Your task to perform on an android device: Clear the cart on amazon. Add razer blade to the cart on amazon, then select checkout. Image 0: 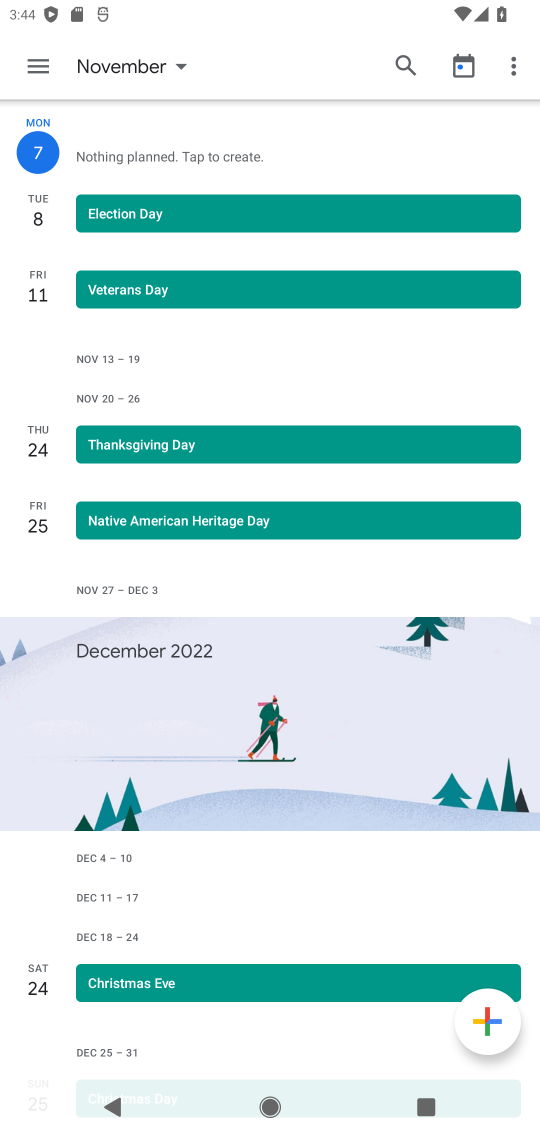
Step 0: press home button
Your task to perform on an android device: Clear the cart on amazon. Add razer blade to the cart on amazon, then select checkout. Image 1: 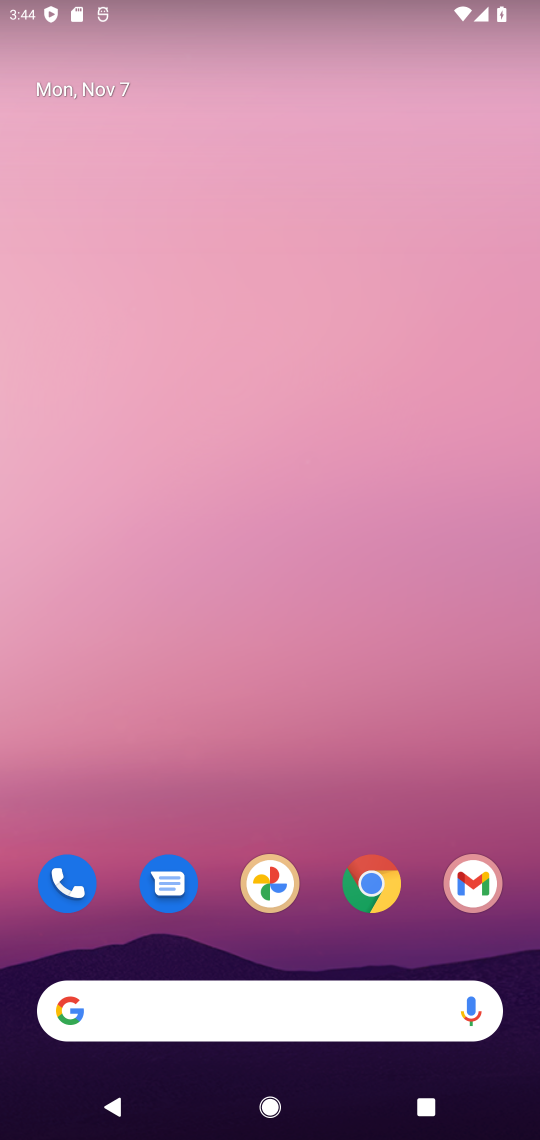
Step 1: click (374, 888)
Your task to perform on an android device: Clear the cart on amazon. Add razer blade to the cart on amazon, then select checkout. Image 2: 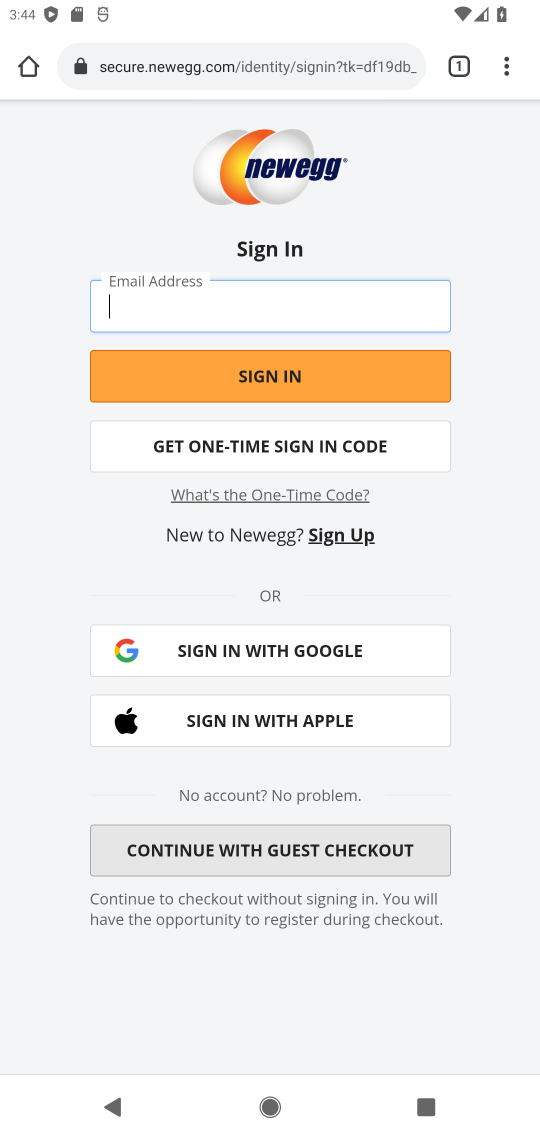
Step 2: click (209, 64)
Your task to perform on an android device: Clear the cart on amazon. Add razer blade to the cart on amazon, then select checkout. Image 3: 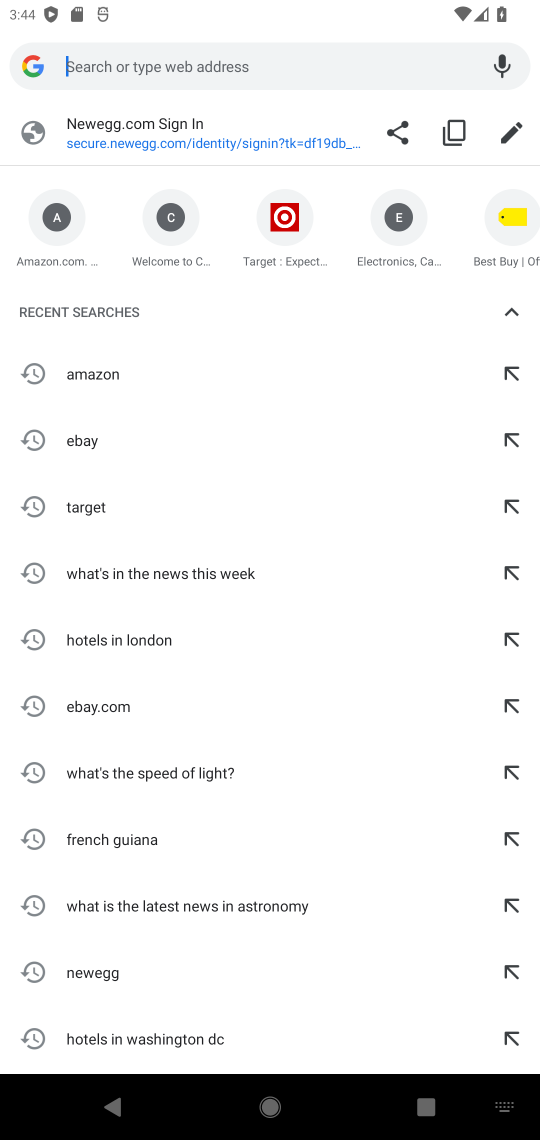
Step 3: click (71, 256)
Your task to perform on an android device: Clear the cart on amazon. Add razer blade to the cart on amazon, then select checkout. Image 4: 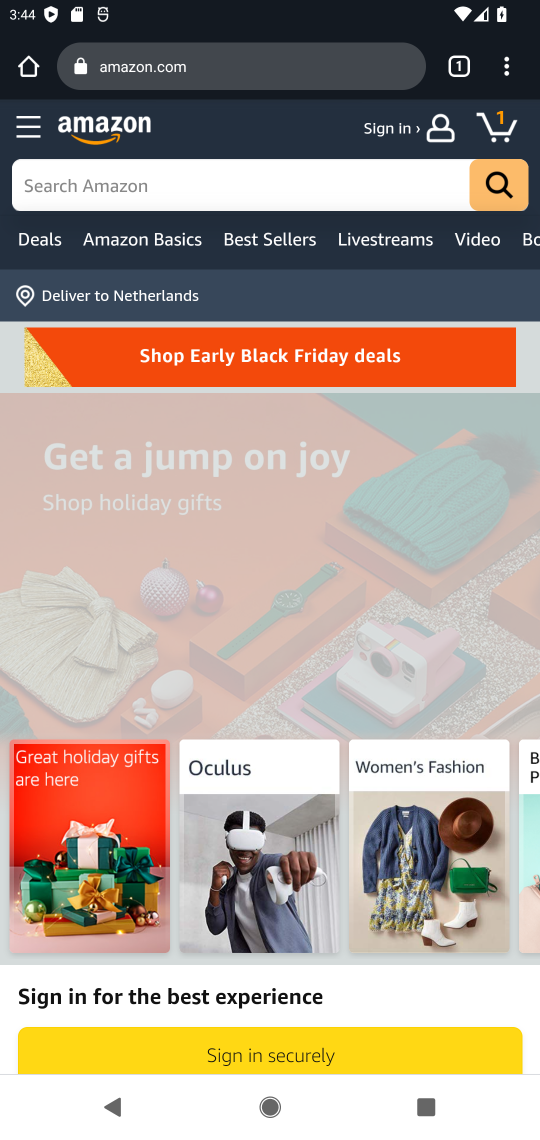
Step 4: click (497, 119)
Your task to perform on an android device: Clear the cart on amazon. Add razer blade to the cart on amazon, then select checkout. Image 5: 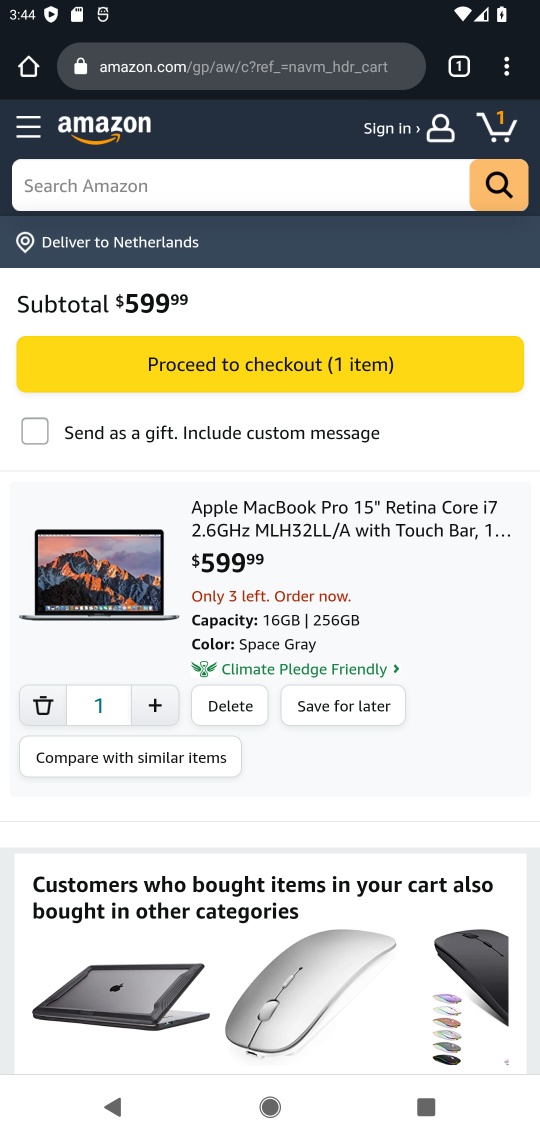
Step 5: click (234, 694)
Your task to perform on an android device: Clear the cart on amazon. Add razer blade to the cart on amazon, then select checkout. Image 6: 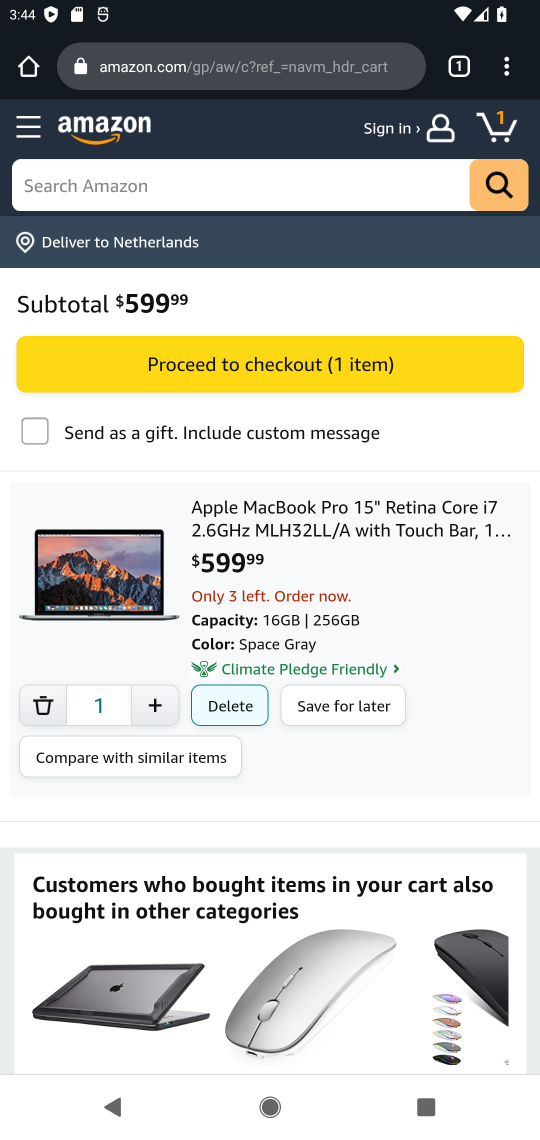
Step 6: click (237, 710)
Your task to perform on an android device: Clear the cart on amazon. Add razer blade to the cart on amazon, then select checkout. Image 7: 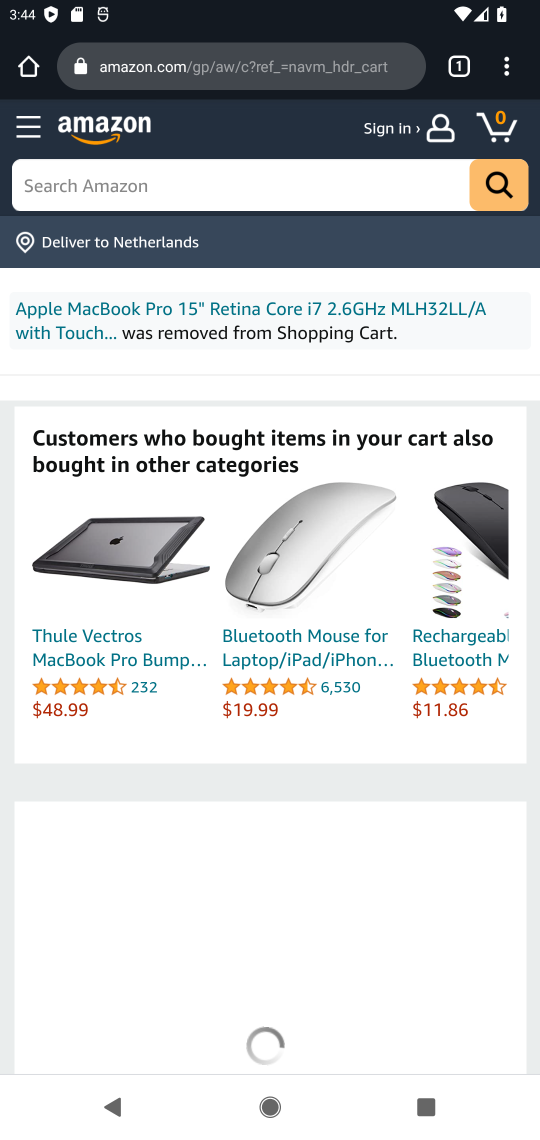
Step 7: click (55, 185)
Your task to perform on an android device: Clear the cart on amazon. Add razer blade to the cart on amazon, then select checkout. Image 8: 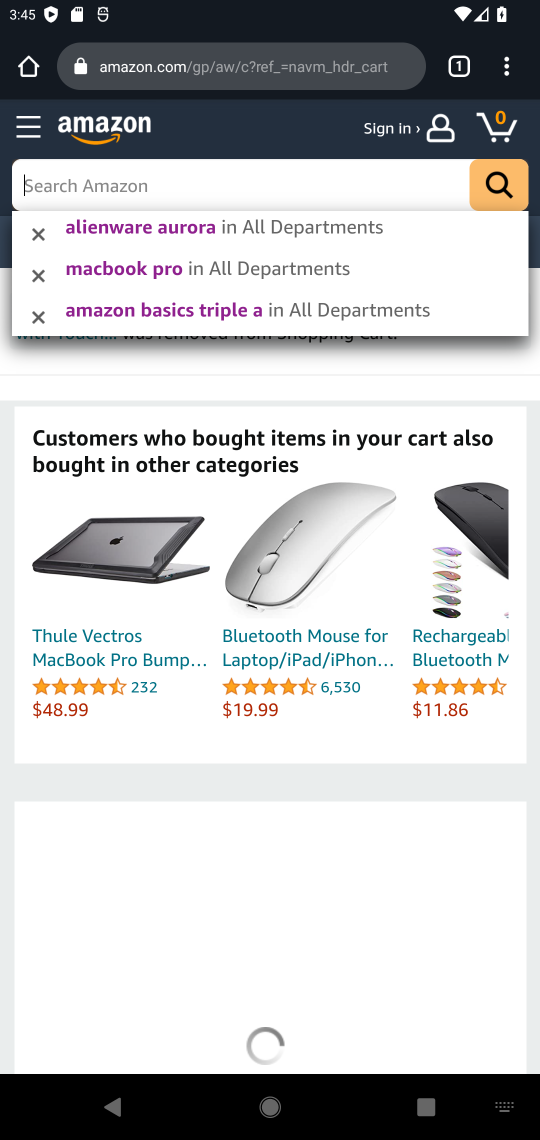
Step 8: type " razer blade"
Your task to perform on an android device: Clear the cart on amazon. Add razer blade to the cart on amazon, then select checkout. Image 9: 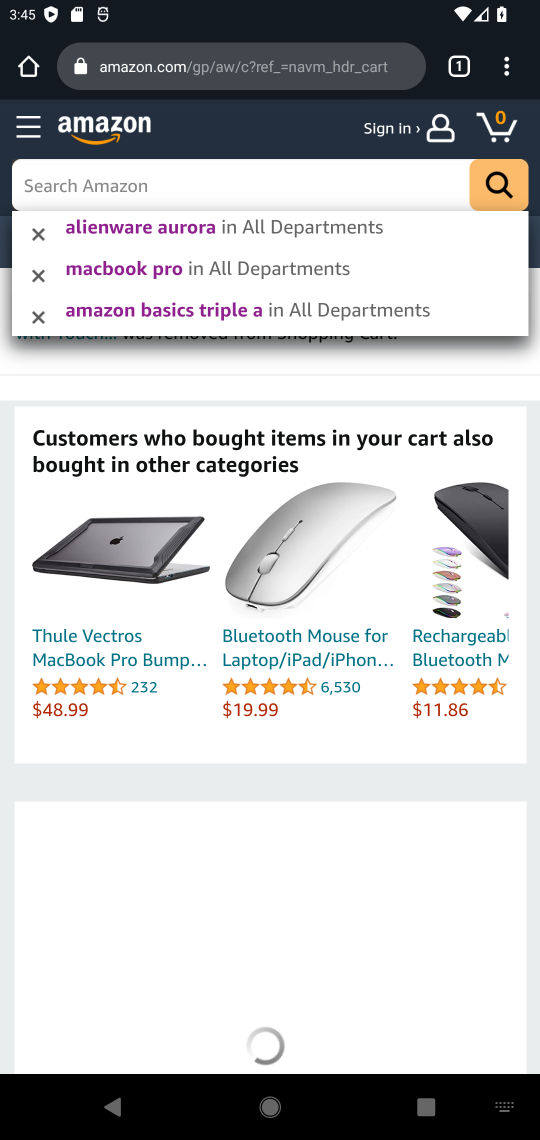
Step 9: press enter
Your task to perform on an android device: Clear the cart on amazon. Add razer blade to the cart on amazon, then select checkout. Image 10: 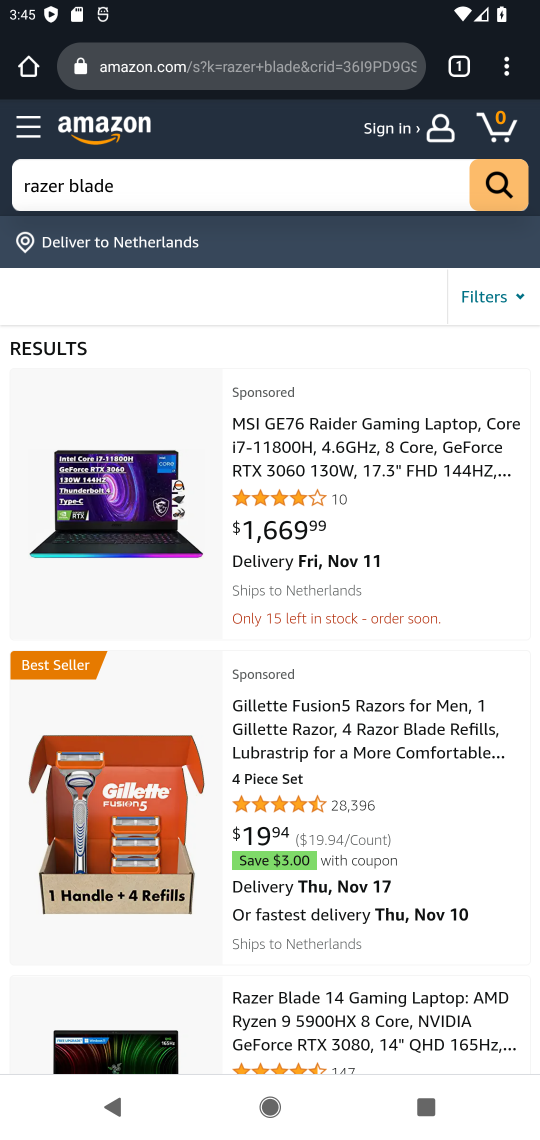
Step 10: click (282, 1019)
Your task to perform on an android device: Clear the cart on amazon. Add razer blade to the cart on amazon, then select checkout. Image 11: 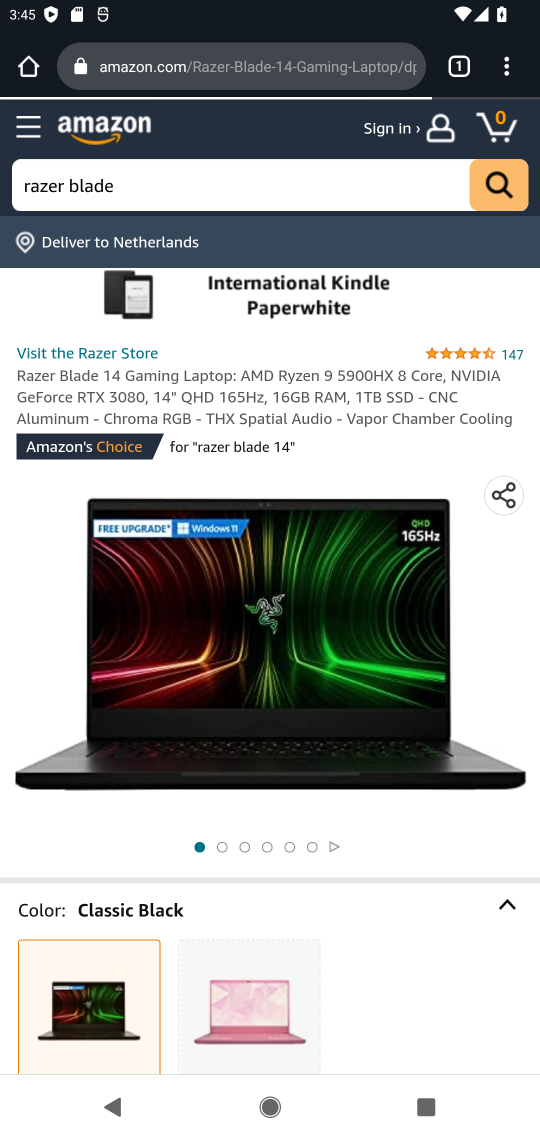
Step 11: drag from (294, 892) to (474, 76)
Your task to perform on an android device: Clear the cart on amazon. Add razer blade to the cart on amazon, then select checkout. Image 12: 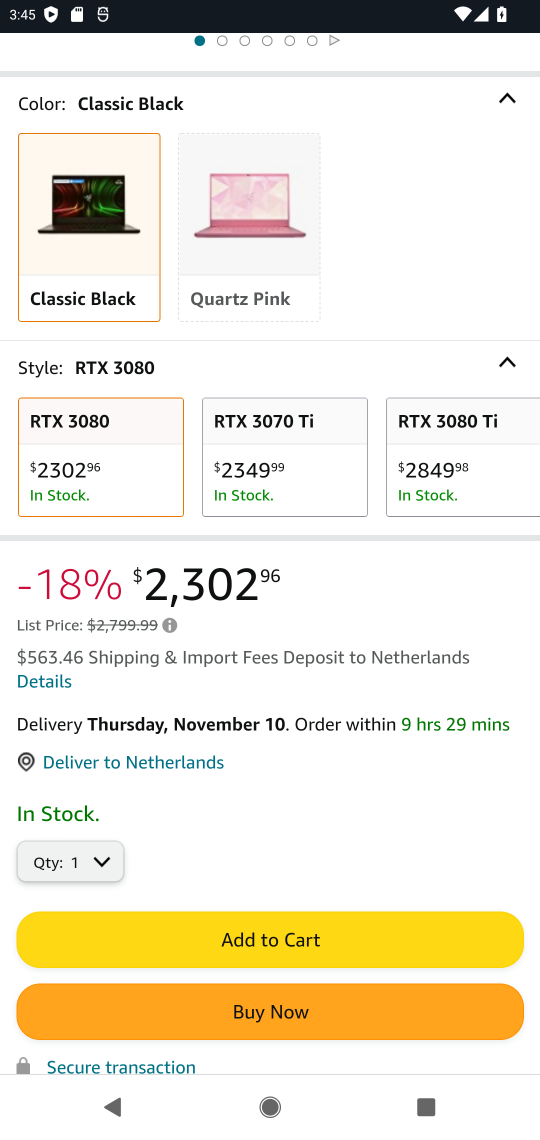
Step 12: click (281, 937)
Your task to perform on an android device: Clear the cart on amazon. Add razer blade to the cart on amazon, then select checkout. Image 13: 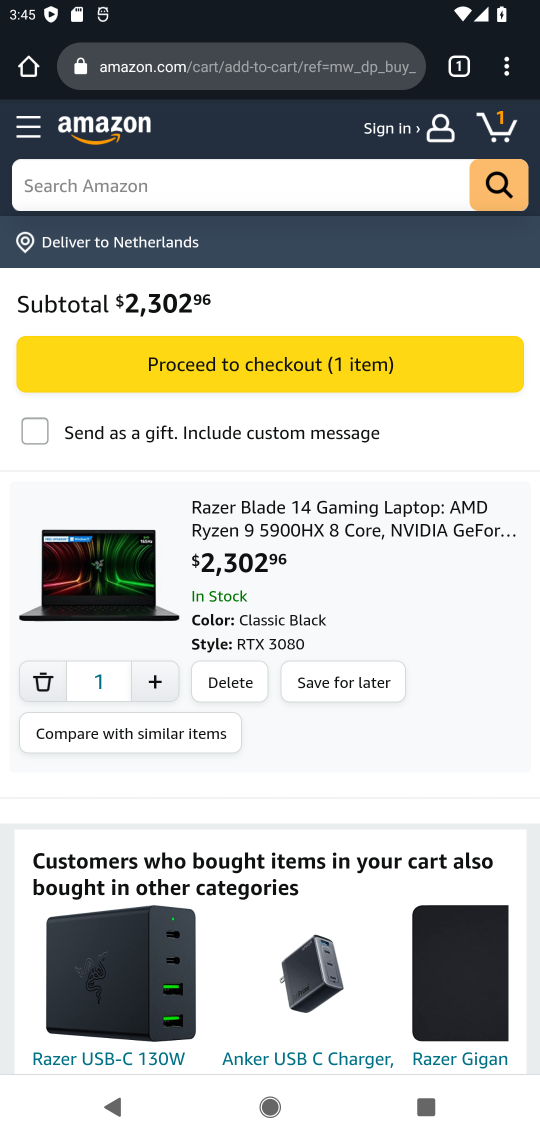
Step 13: click (279, 368)
Your task to perform on an android device: Clear the cart on amazon. Add razer blade to the cart on amazon, then select checkout. Image 14: 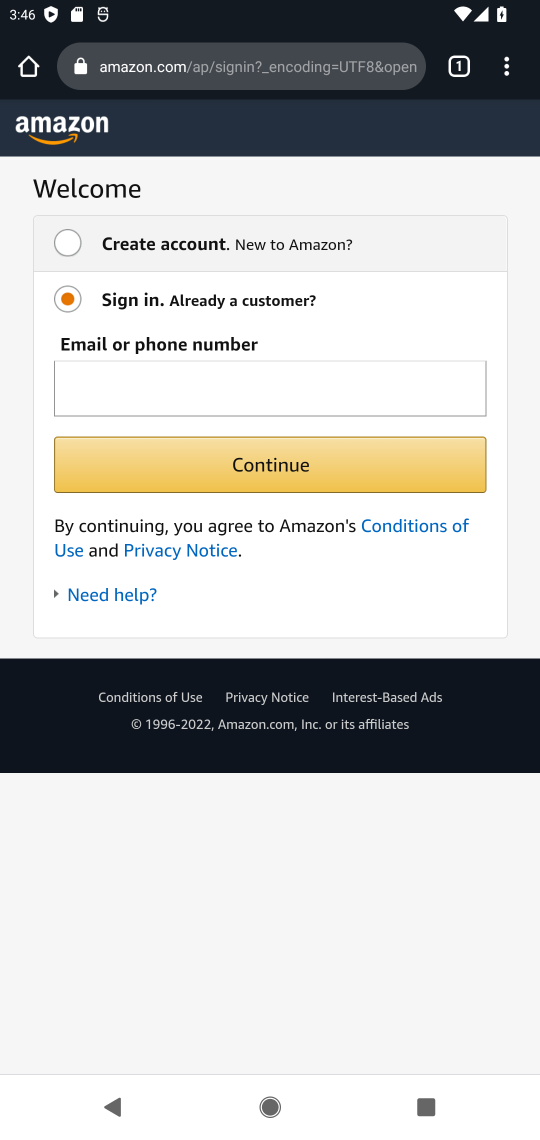
Step 14: task complete